Your task to perform on an android device: Clear all items from cart on costco. Search for "usb-b" on costco, select the first entry, add it to the cart, then select checkout. Image 0: 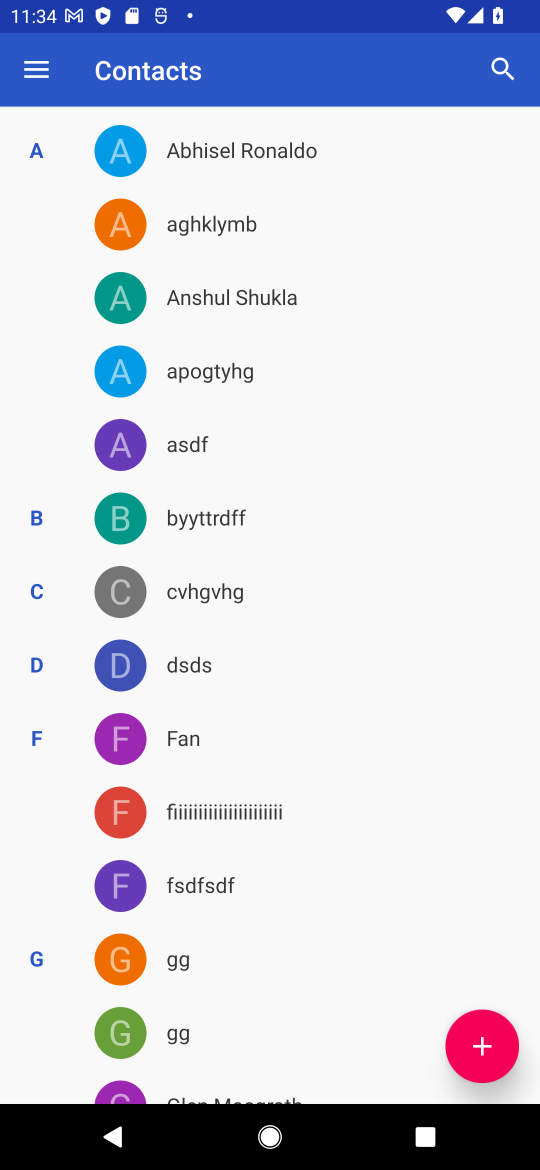
Step 0: press home button
Your task to perform on an android device: Clear all items from cart on costco. Search for "usb-b" on costco, select the first entry, add it to the cart, then select checkout. Image 1: 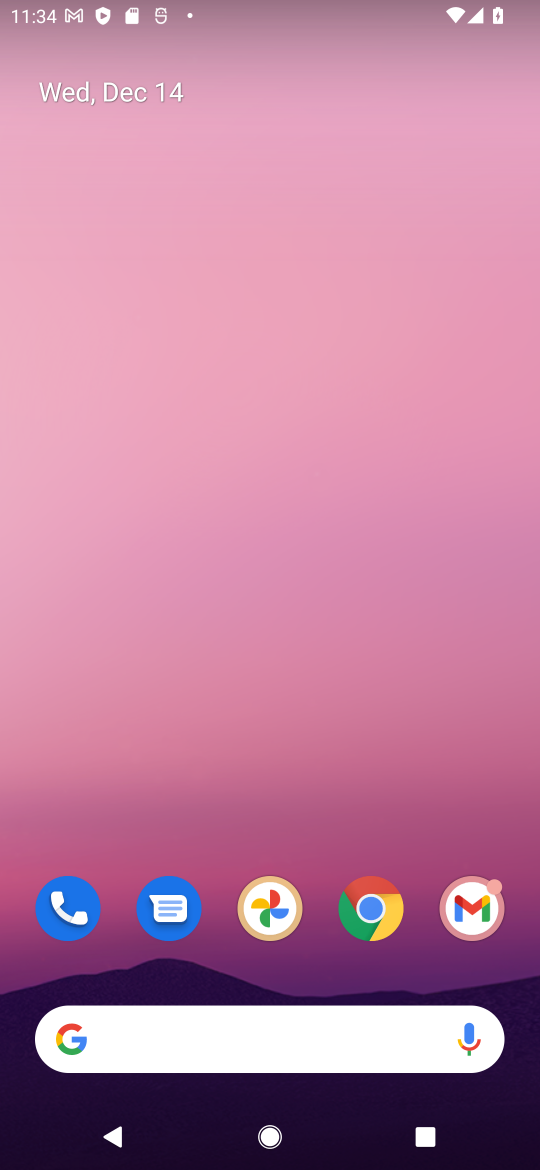
Step 1: click (361, 915)
Your task to perform on an android device: Clear all items from cart on costco. Search for "usb-b" on costco, select the first entry, add it to the cart, then select checkout. Image 2: 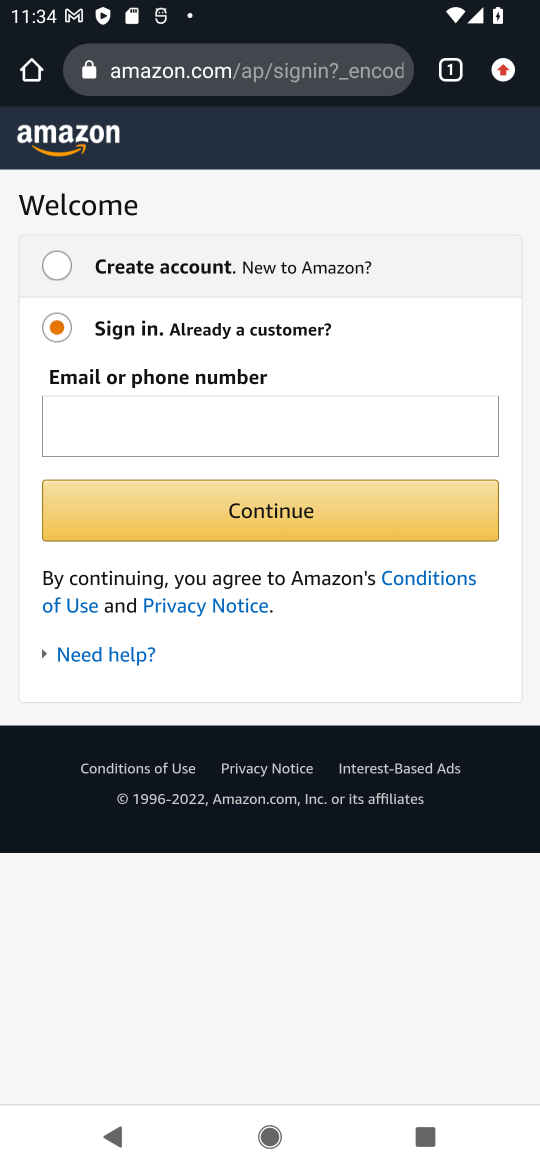
Step 2: click (240, 78)
Your task to perform on an android device: Clear all items from cart on costco. Search for "usb-b" on costco, select the first entry, add it to the cart, then select checkout. Image 3: 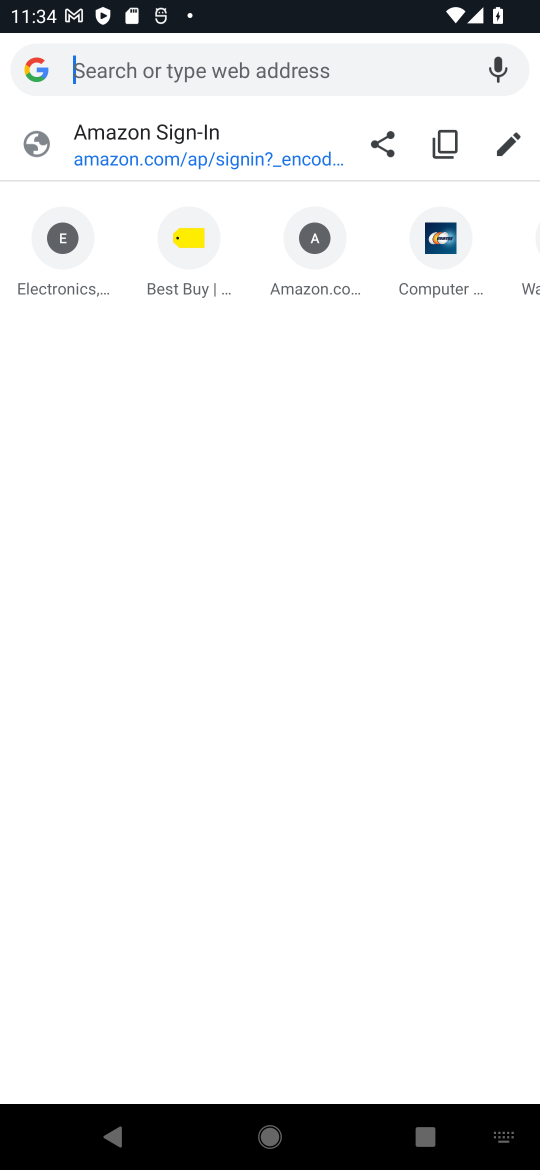
Step 3: type "costco.com"
Your task to perform on an android device: Clear all items from cart on costco. Search for "usb-b" on costco, select the first entry, add it to the cart, then select checkout. Image 4: 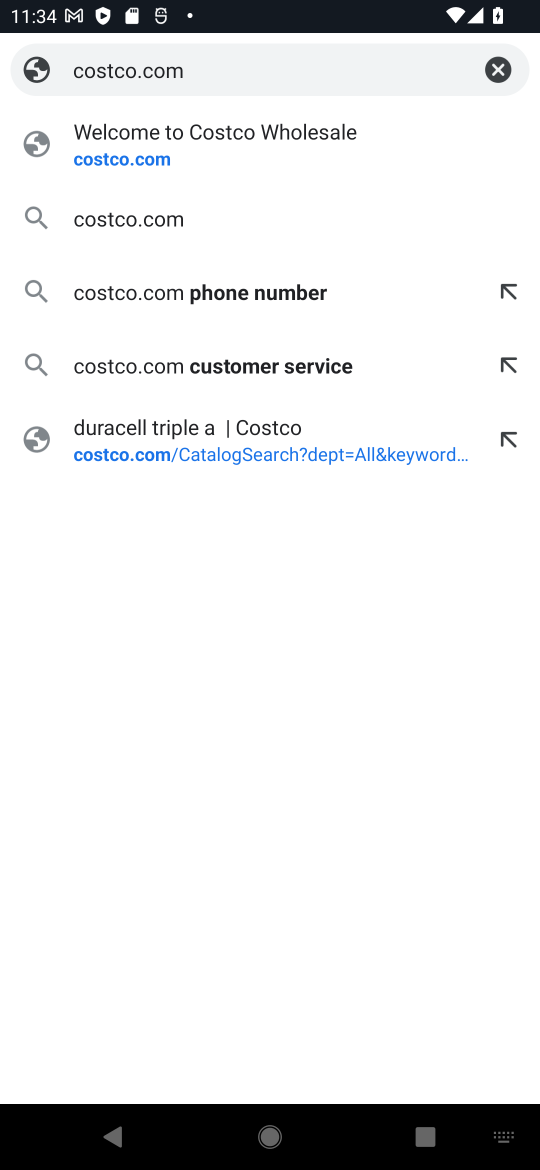
Step 4: click (89, 152)
Your task to perform on an android device: Clear all items from cart on costco. Search for "usb-b" on costco, select the first entry, add it to the cart, then select checkout. Image 5: 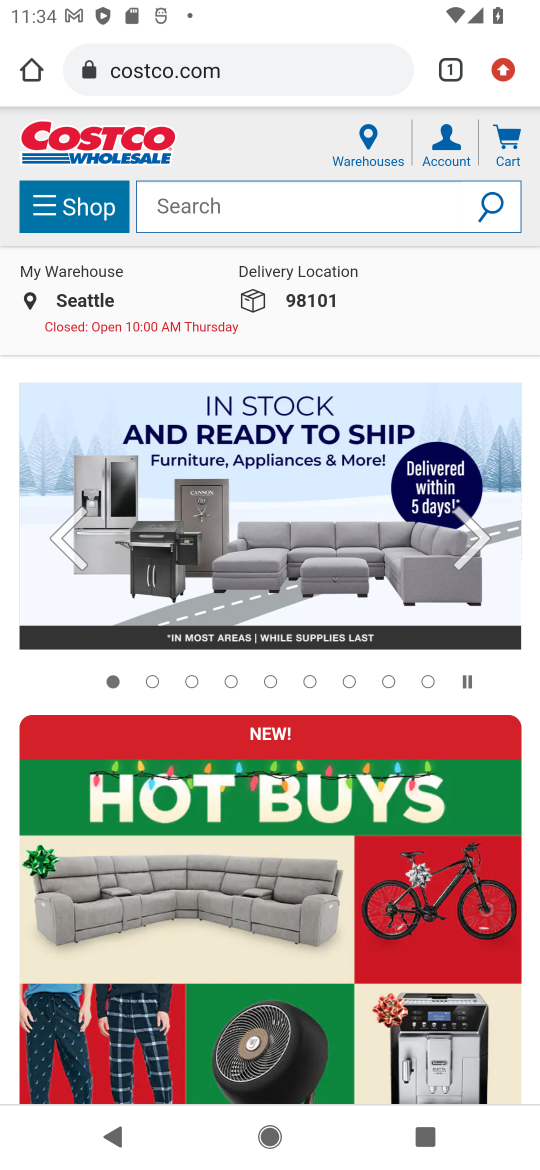
Step 5: click (503, 143)
Your task to perform on an android device: Clear all items from cart on costco. Search for "usb-b" on costco, select the first entry, add it to the cart, then select checkout. Image 6: 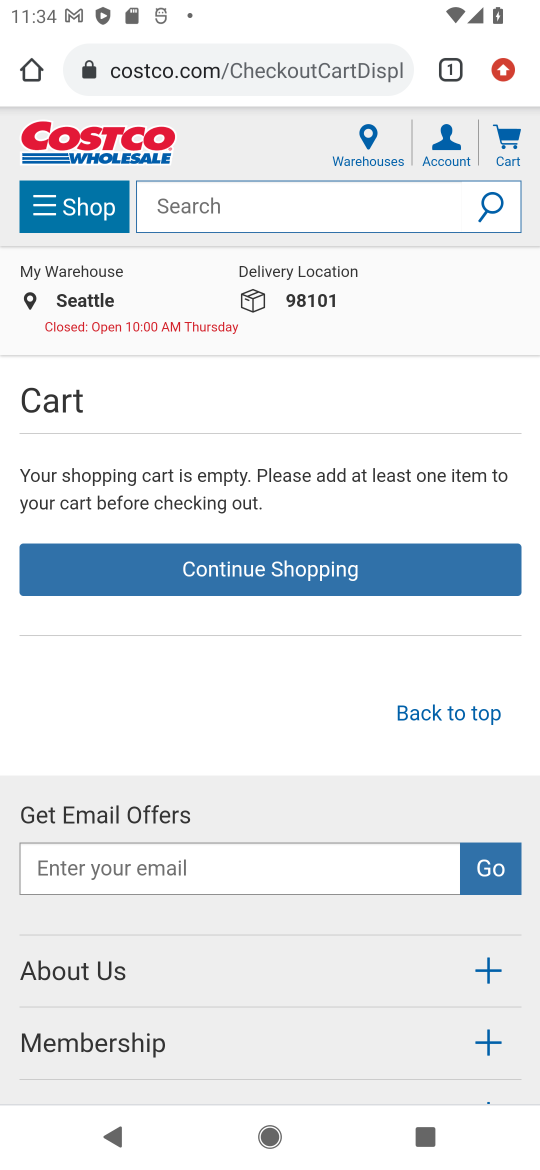
Step 6: click (205, 219)
Your task to perform on an android device: Clear all items from cart on costco. Search for "usb-b" on costco, select the first entry, add it to the cart, then select checkout. Image 7: 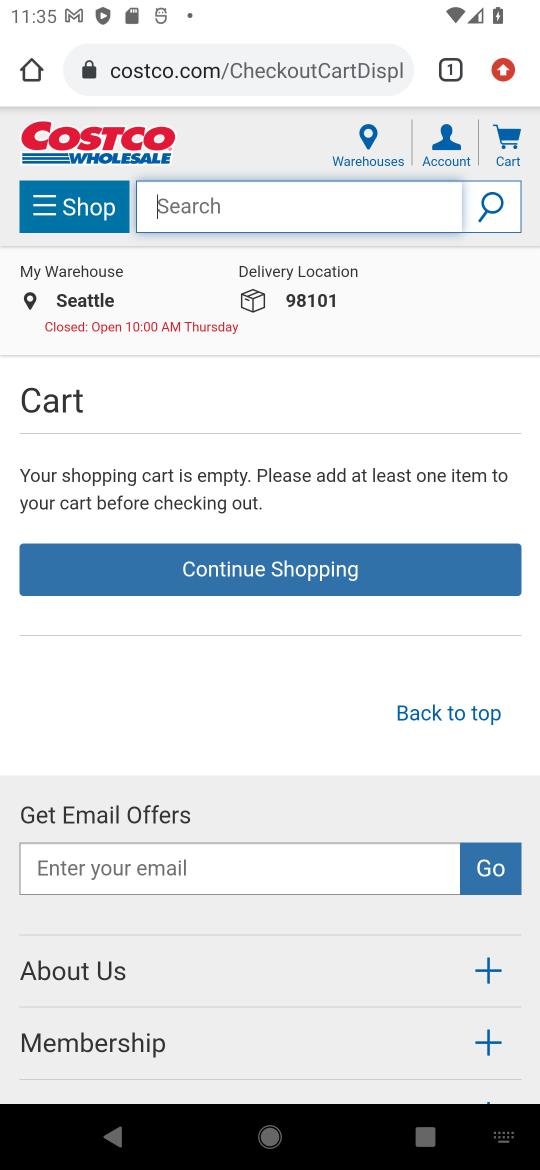
Step 7: type "usb-b"
Your task to perform on an android device: Clear all items from cart on costco. Search for "usb-b" on costco, select the first entry, add it to the cart, then select checkout. Image 8: 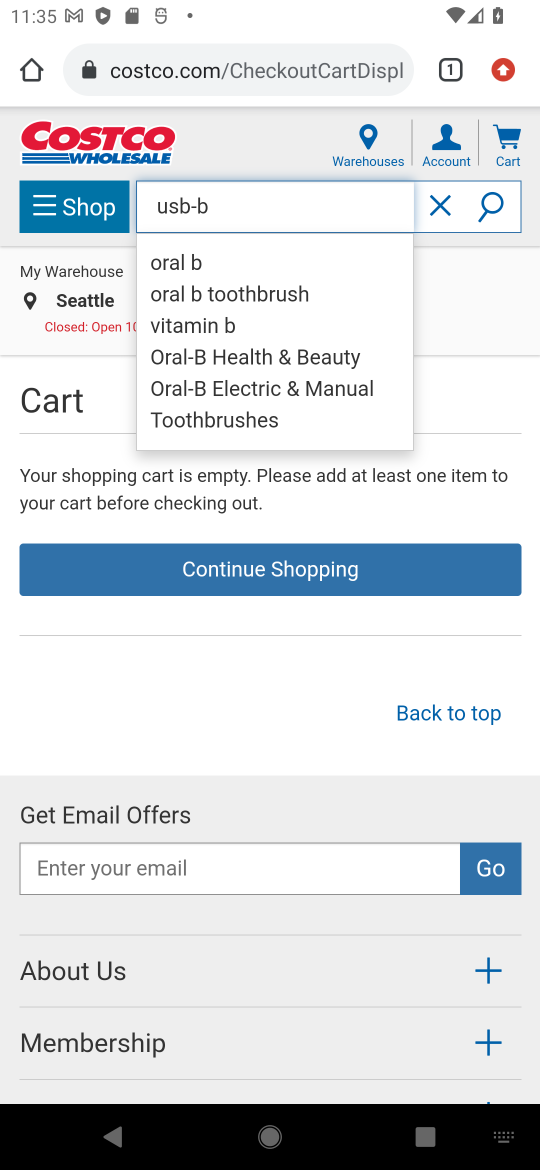
Step 8: click (506, 199)
Your task to perform on an android device: Clear all items from cart on costco. Search for "usb-b" on costco, select the first entry, add it to the cart, then select checkout. Image 9: 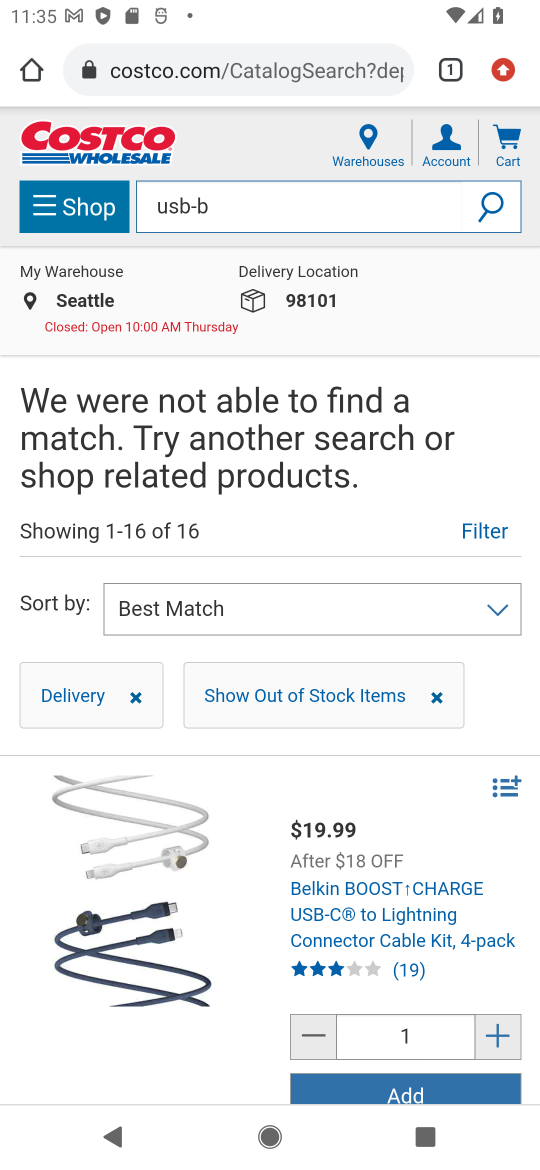
Step 9: task complete